Your task to perform on an android device: Go to Yahoo.com Image 0: 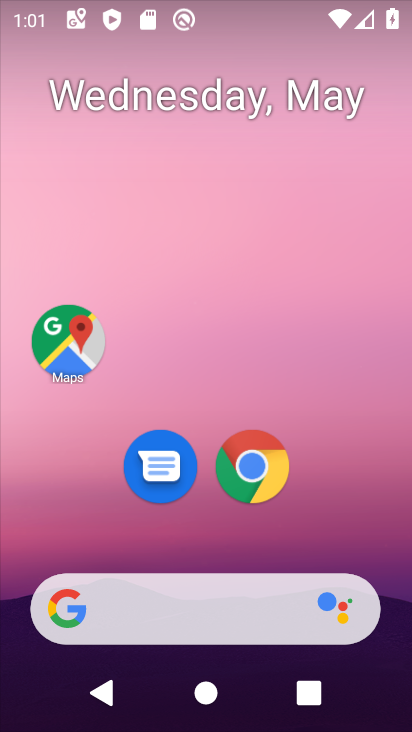
Step 0: click (248, 470)
Your task to perform on an android device: Go to Yahoo.com Image 1: 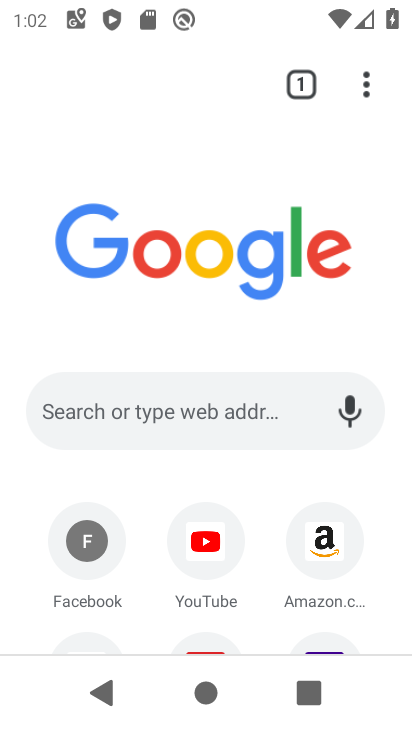
Step 1: drag from (262, 517) to (279, 155)
Your task to perform on an android device: Go to Yahoo.com Image 2: 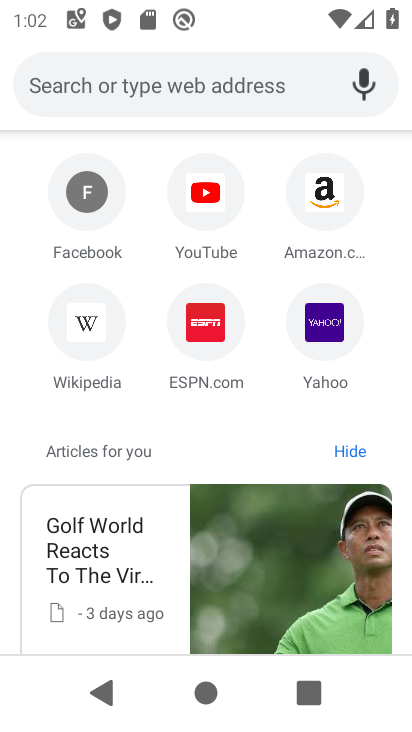
Step 2: click (325, 314)
Your task to perform on an android device: Go to Yahoo.com Image 3: 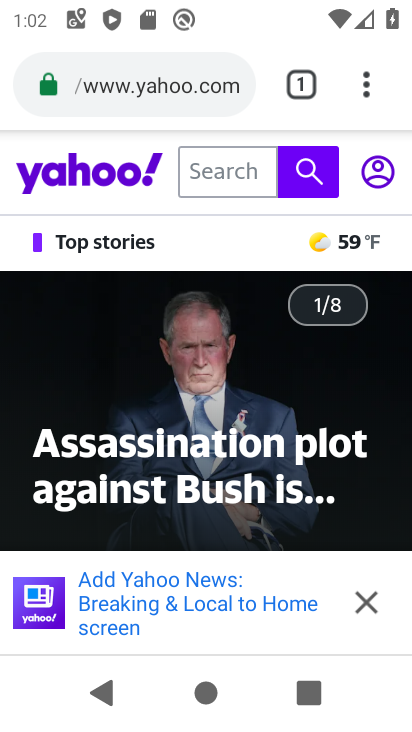
Step 3: task complete